Your task to perform on an android device: Open the calendar app, open the side menu, and click the "Day" option Image 0: 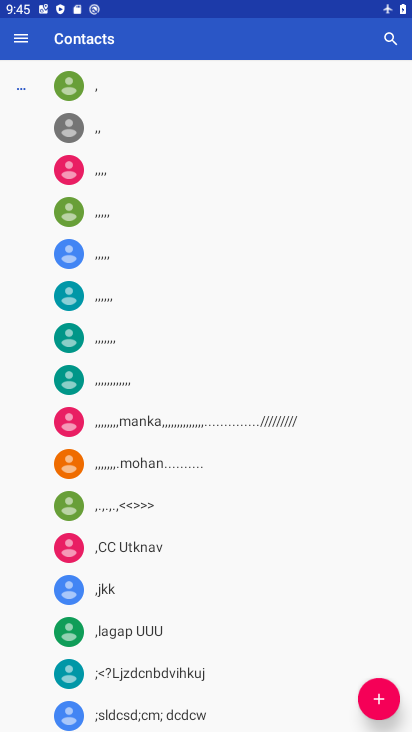
Step 0: press home button
Your task to perform on an android device: Open the calendar app, open the side menu, and click the "Day" option Image 1: 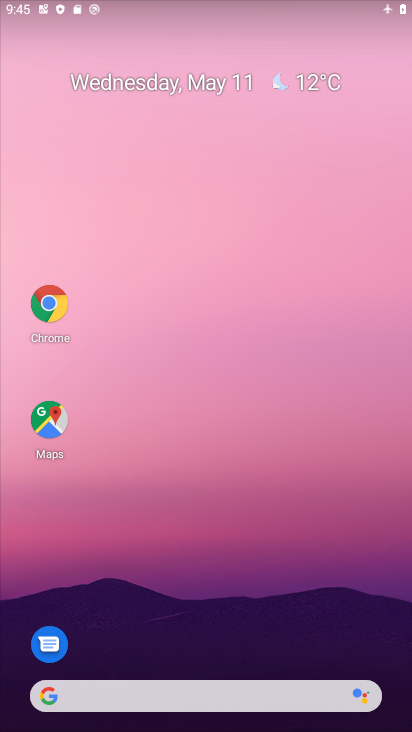
Step 1: click (396, 329)
Your task to perform on an android device: Open the calendar app, open the side menu, and click the "Day" option Image 2: 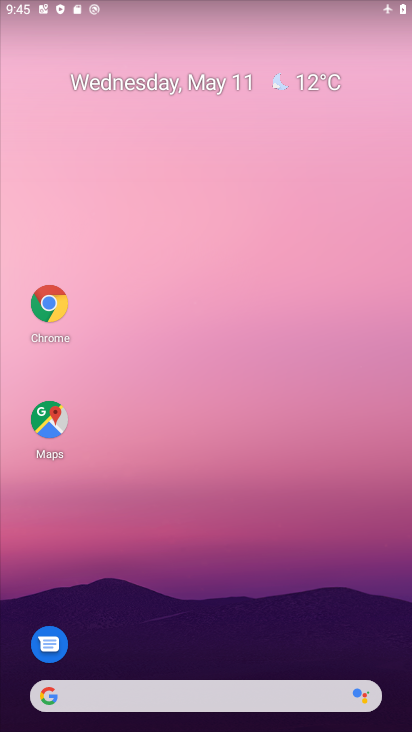
Step 2: drag from (150, 595) to (171, 270)
Your task to perform on an android device: Open the calendar app, open the side menu, and click the "Day" option Image 3: 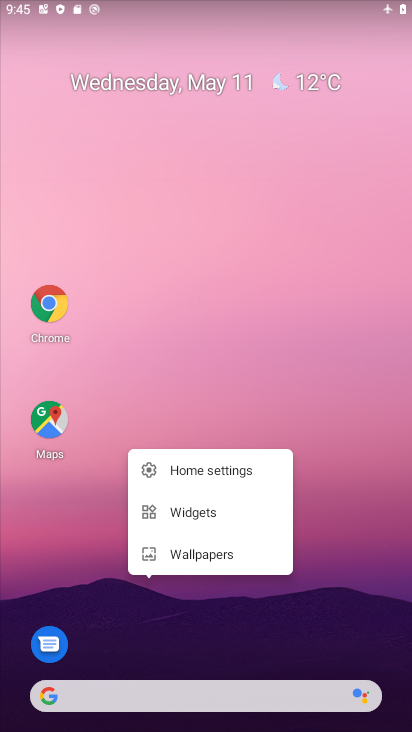
Step 3: drag from (315, 640) to (305, 181)
Your task to perform on an android device: Open the calendar app, open the side menu, and click the "Day" option Image 4: 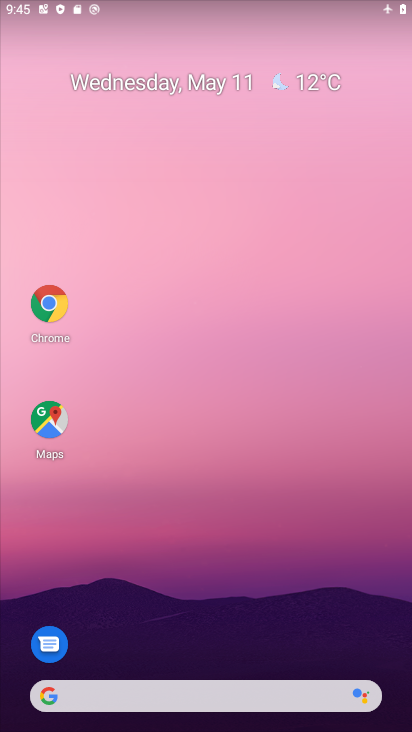
Step 4: drag from (153, 644) to (89, 145)
Your task to perform on an android device: Open the calendar app, open the side menu, and click the "Day" option Image 5: 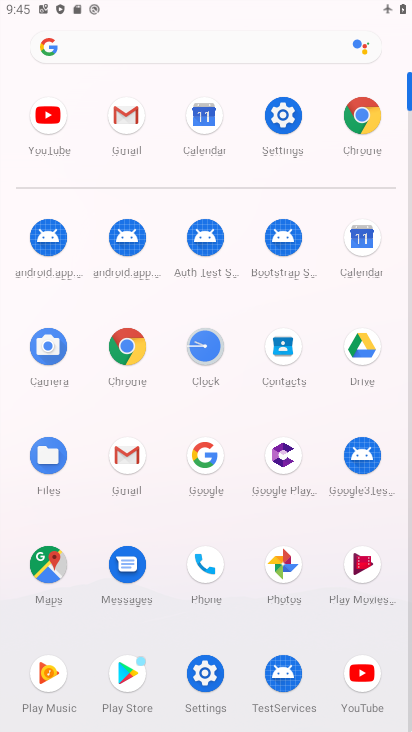
Step 5: click (205, 119)
Your task to perform on an android device: Open the calendar app, open the side menu, and click the "Day" option Image 6: 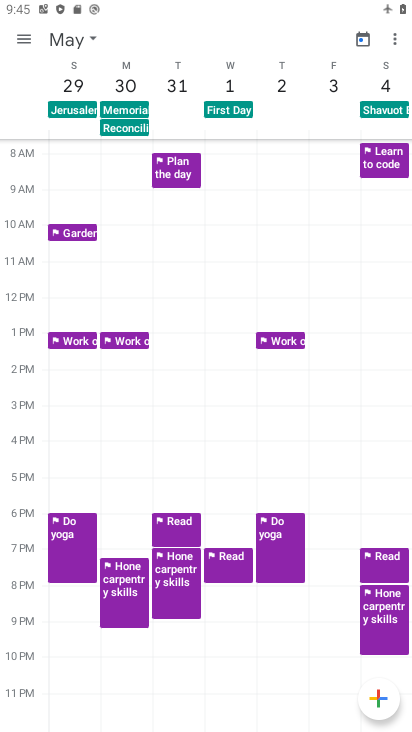
Step 6: click (24, 38)
Your task to perform on an android device: Open the calendar app, open the side menu, and click the "Day" option Image 7: 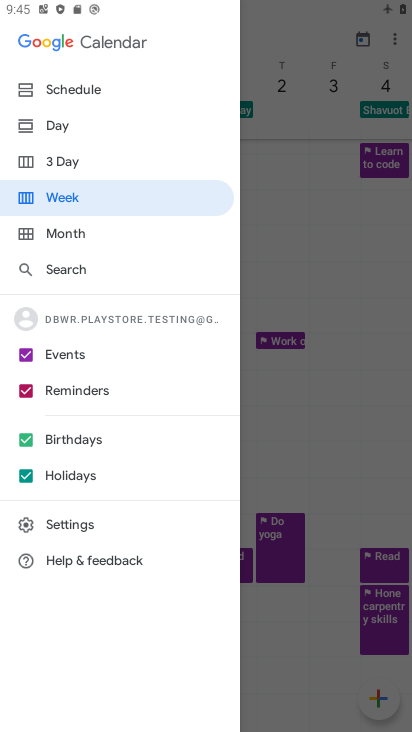
Step 7: click (56, 124)
Your task to perform on an android device: Open the calendar app, open the side menu, and click the "Day" option Image 8: 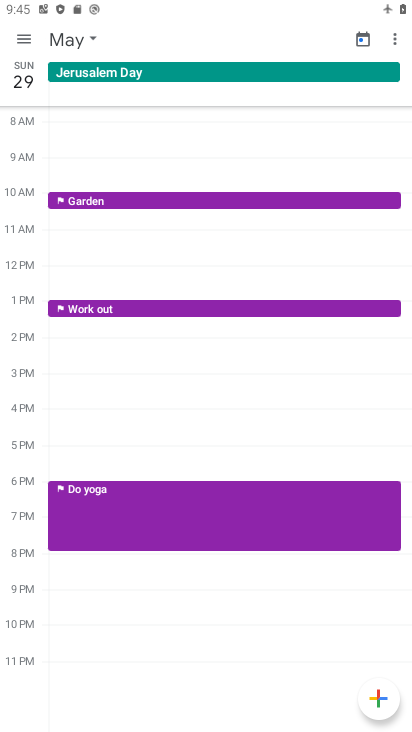
Step 8: task complete